Your task to perform on an android device: toggle pop-ups in chrome Image 0: 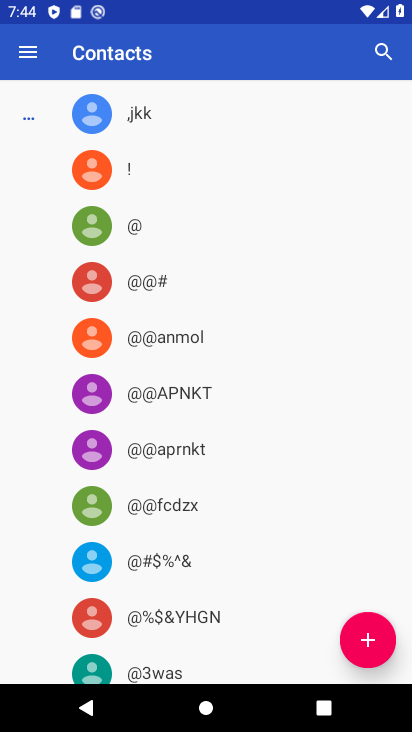
Step 0: press home button
Your task to perform on an android device: toggle pop-ups in chrome Image 1: 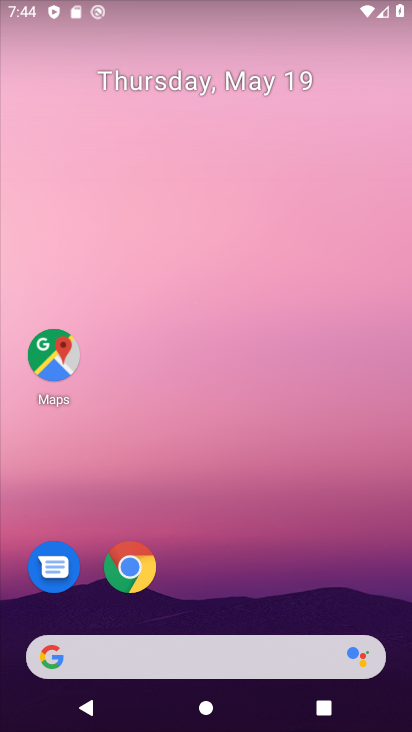
Step 1: drag from (205, 644) to (128, 108)
Your task to perform on an android device: toggle pop-ups in chrome Image 2: 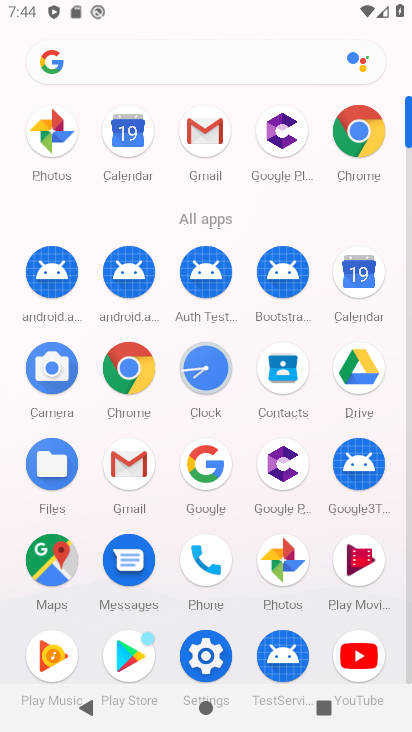
Step 2: click (123, 355)
Your task to perform on an android device: toggle pop-ups in chrome Image 3: 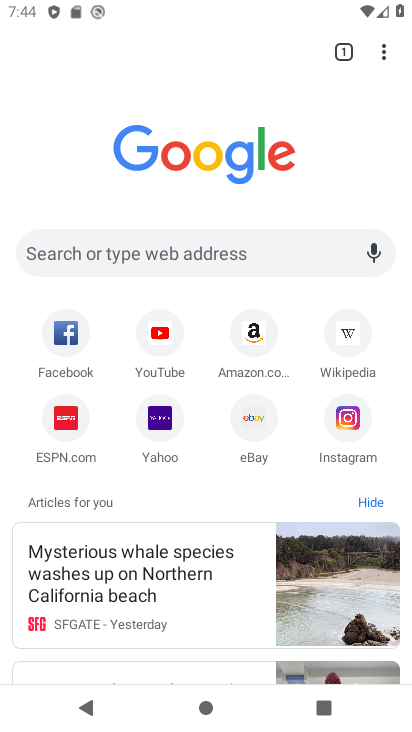
Step 3: click (380, 62)
Your task to perform on an android device: toggle pop-ups in chrome Image 4: 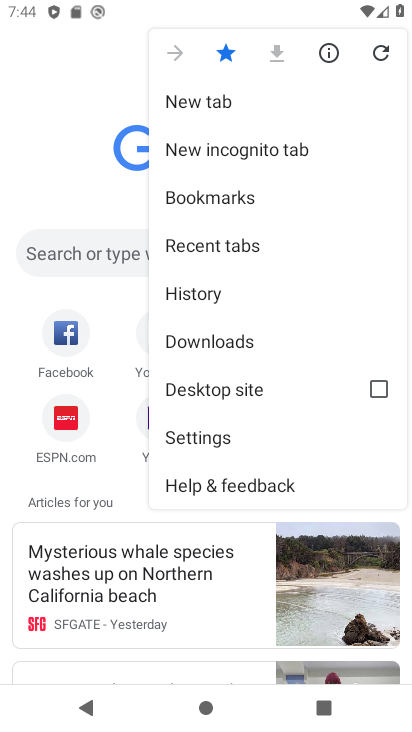
Step 4: click (228, 429)
Your task to perform on an android device: toggle pop-ups in chrome Image 5: 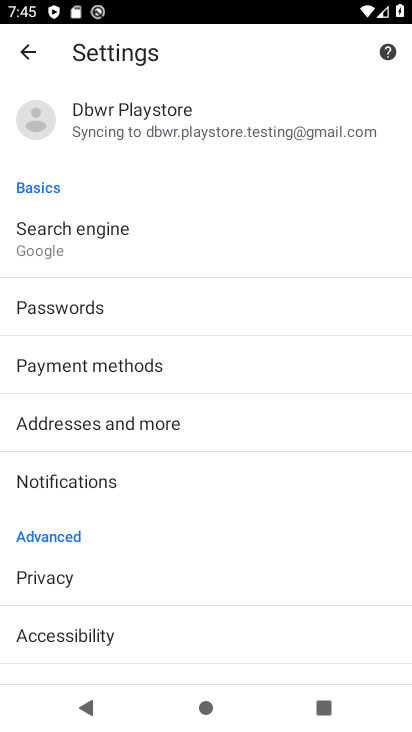
Step 5: drag from (251, 554) to (226, 193)
Your task to perform on an android device: toggle pop-ups in chrome Image 6: 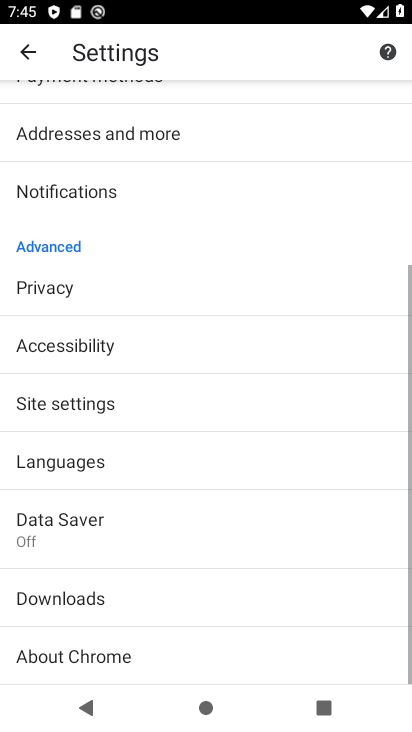
Step 6: click (132, 408)
Your task to perform on an android device: toggle pop-ups in chrome Image 7: 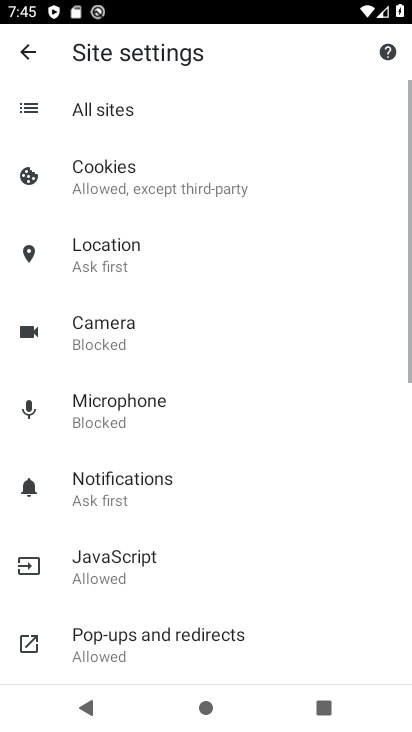
Step 7: drag from (183, 515) to (165, 298)
Your task to perform on an android device: toggle pop-ups in chrome Image 8: 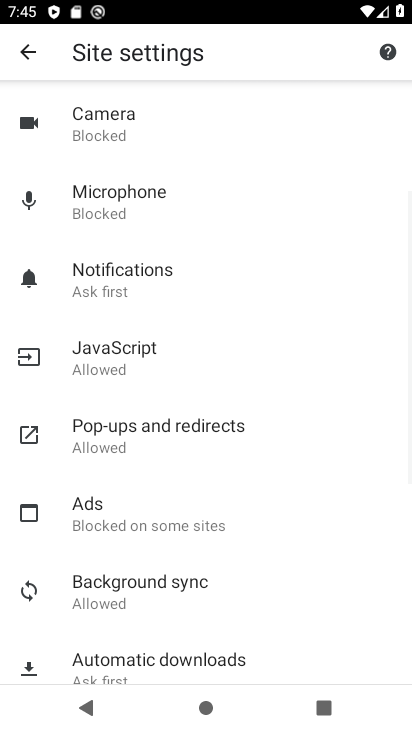
Step 8: click (135, 421)
Your task to perform on an android device: toggle pop-ups in chrome Image 9: 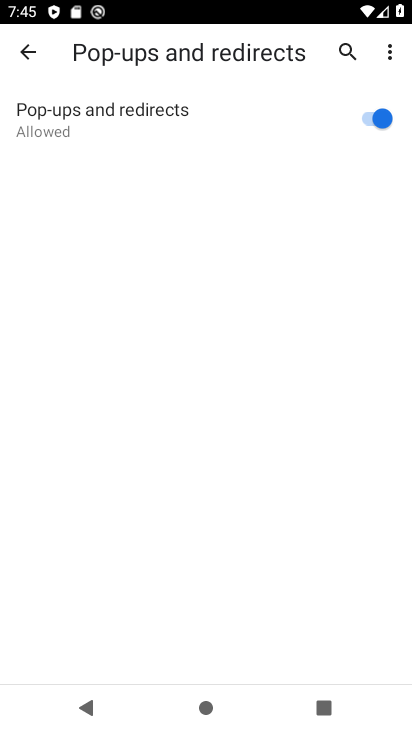
Step 9: click (357, 120)
Your task to perform on an android device: toggle pop-ups in chrome Image 10: 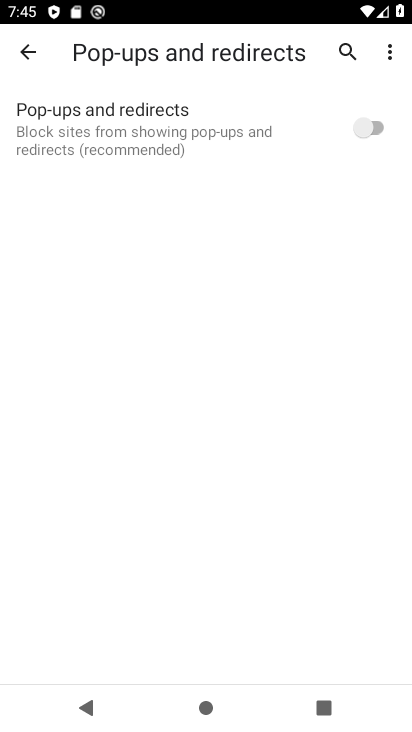
Step 10: task complete